Your task to perform on an android device: Do I have any events today? Image 0: 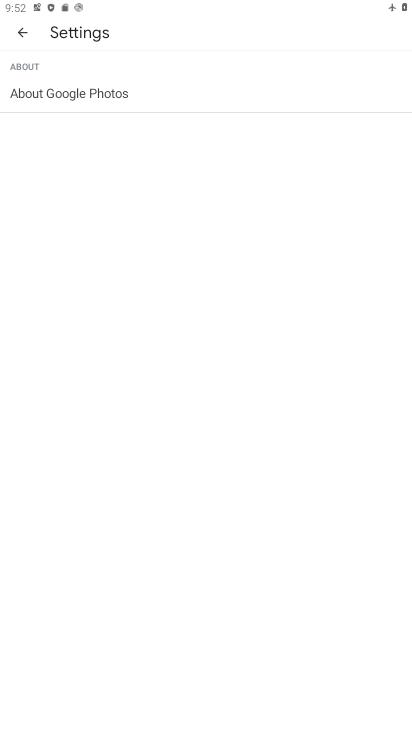
Step 0: press home button
Your task to perform on an android device: Do I have any events today? Image 1: 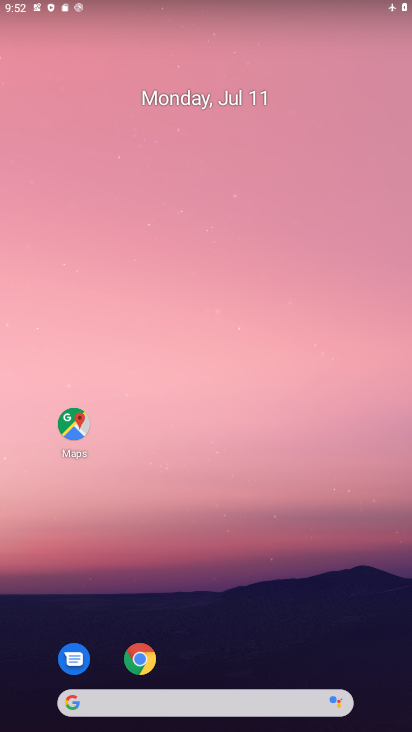
Step 1: drag from (220, 691) to (206, 115)
Your task to perform on an android device: Do I have any events today? Image 2: 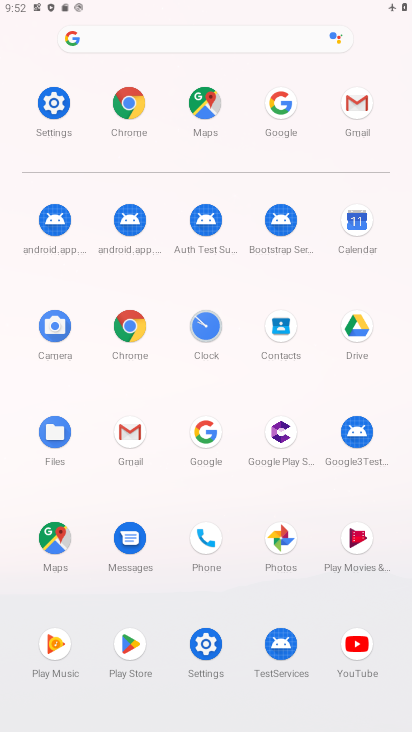
Step 2: click (354, 221)
Your task to perform on an android device: Do I have any events today? Image 3: 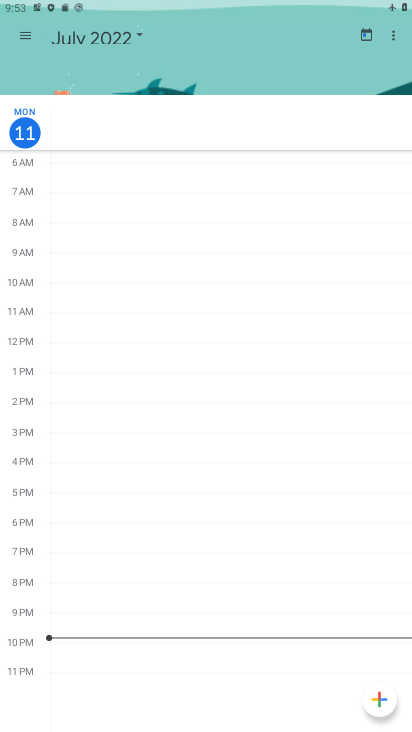
Step 3: click (24, 29)
Your task to perform on an android device: Do I have any events today? Image 4: 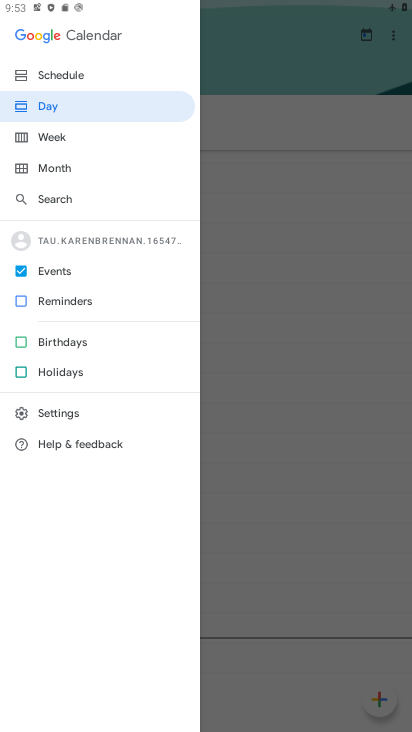
Step 4: click (114, 101)
Your task to perform on an android device: Do I have any events today? Image 5: 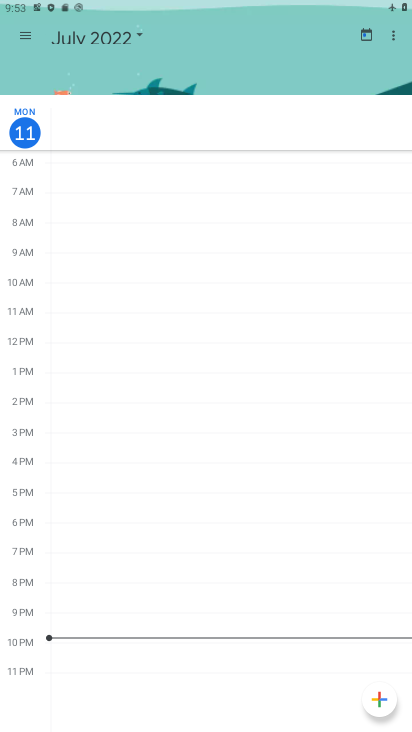
Step 5: task complete